Your task to perform on an android device: Go to CNN.com Image 0: 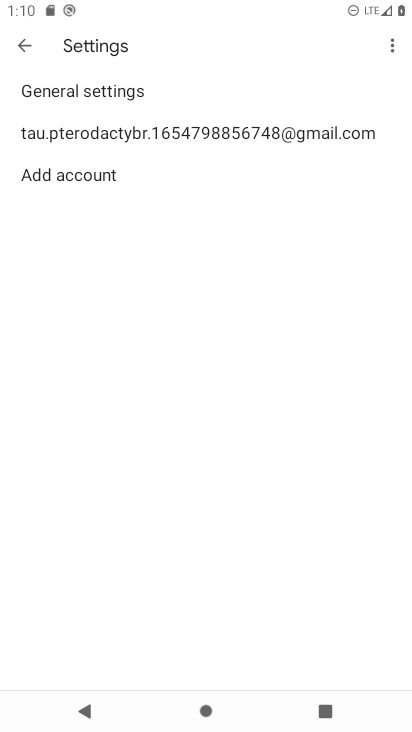
Step 0: press home button
Your task to perform on an android device: Go to CNN.com Image 1: 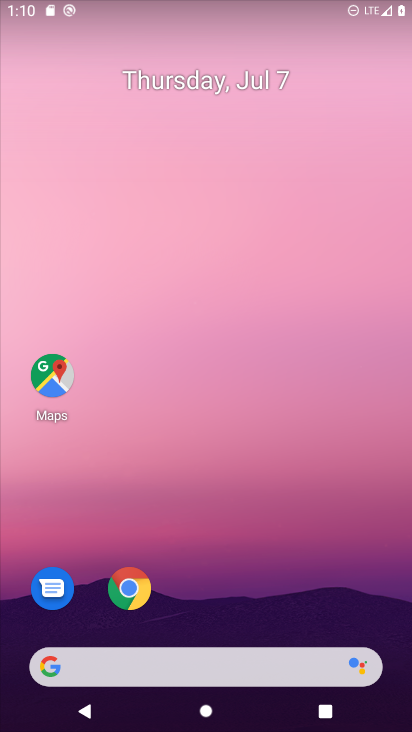
Step 1: press home button
Your task to perform on an android device: Go to CNN.com Image 2: 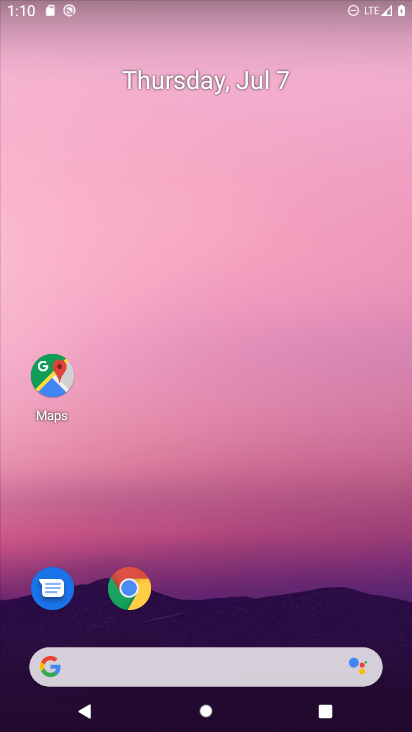
Step 2: drag from (332, 660) to (294, 10)
Your task to perform on an android device: Go to CNN.com Image 3: 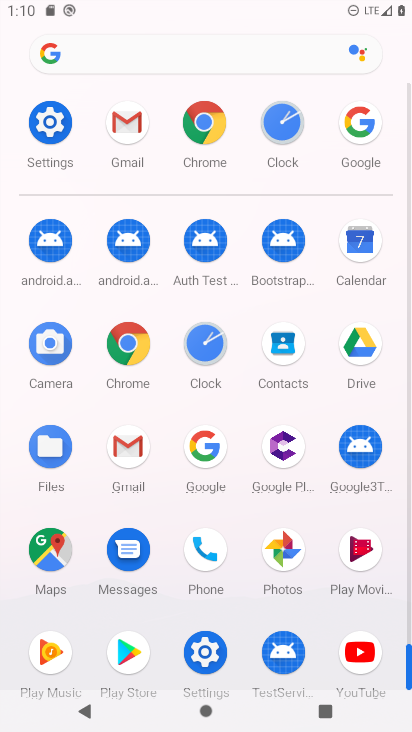
Step 3: click (141, 345)
Your task to perform on an android device: Go to CNN.com Image 4: 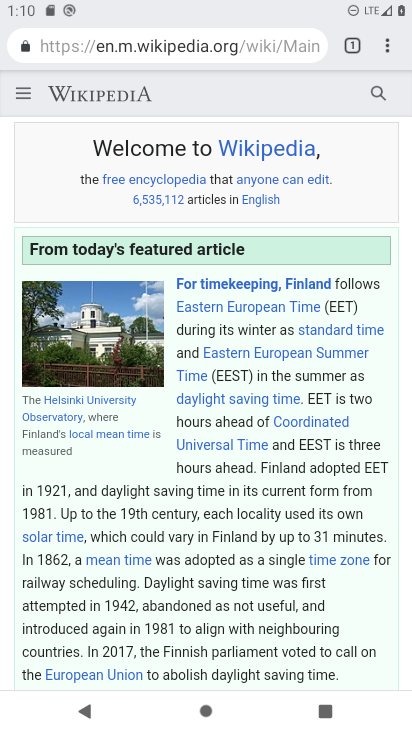
Step 4: click (180, 44)
Your task to perform on an android device: Go to CNN.com Image 5: 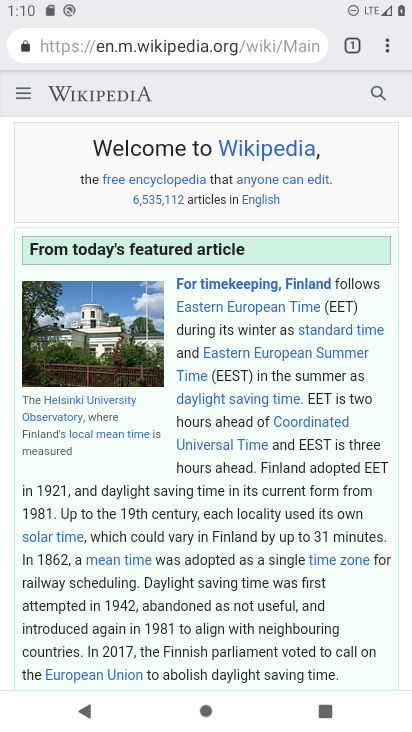
Step 5: click (204, 34)
Your task to perform on an android device: Go to CNN.com Image 6: 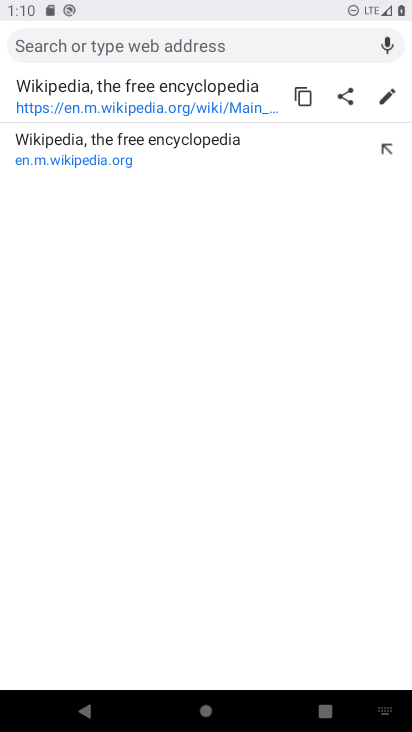
Step 6: type "cnn.com"
Your task to perform on an android device: Go to CNN.com Image 7: 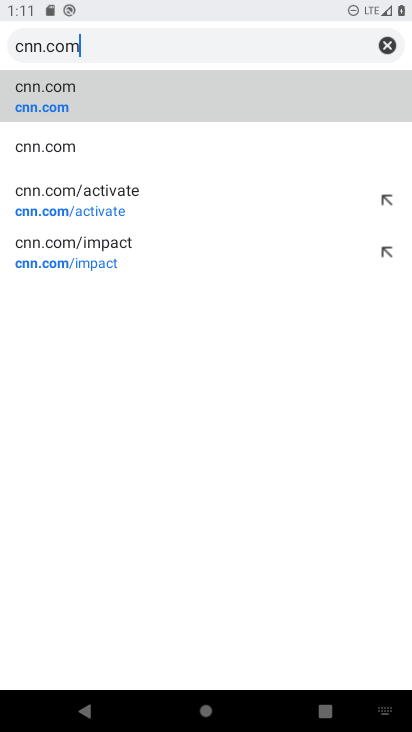
Step 7: click (371, 107)
Your task to perform on an android device: Go to CNN.com Image 8: 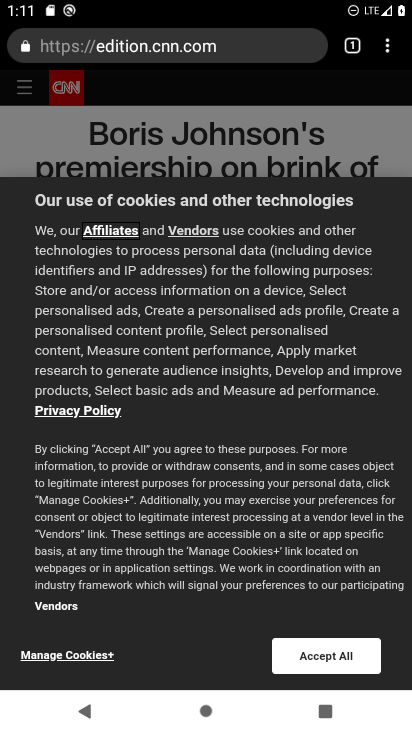
Step 8: task complete